Your task to perform on an android device: stop showing notifications on the lock screen Image 0: 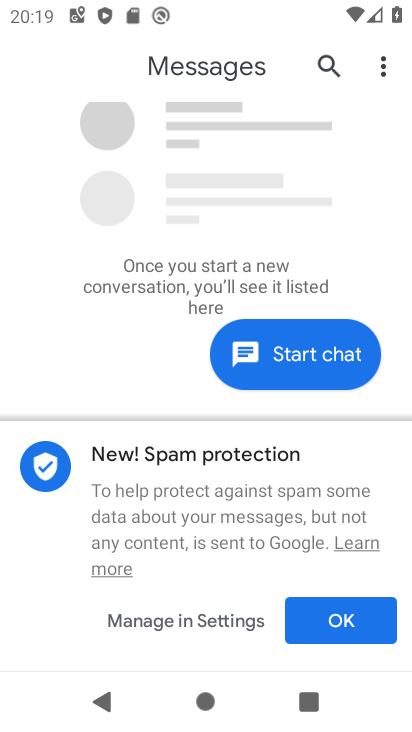
Step 0: press home button
Your task to perform on an android device: stop showing notifications on the lock screen Image 1: 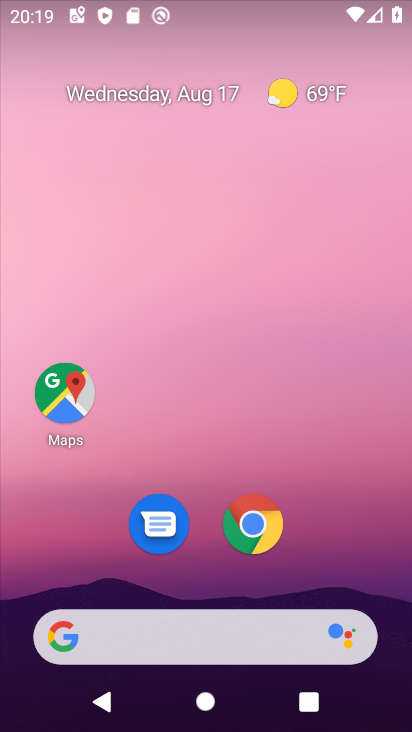
Step 1: drag from (343, 545) to (356, 45)
Your task to perform on an android device: stop showing notifications on the lock screen Image 2: 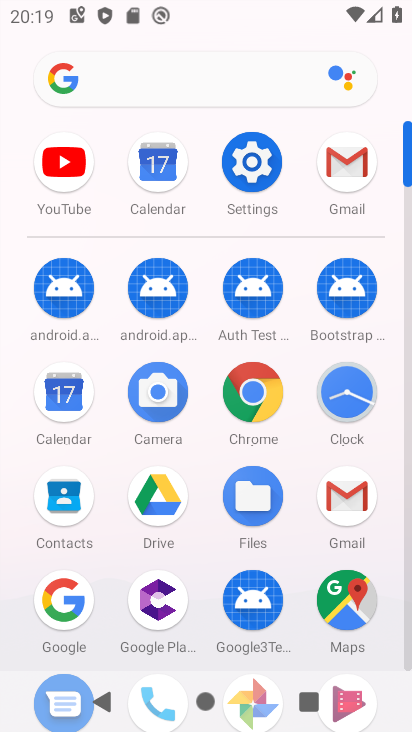
Step 2: click (257, 160)
Your task to perform on an android device: stop showing notifications on the lock screen Image 3: 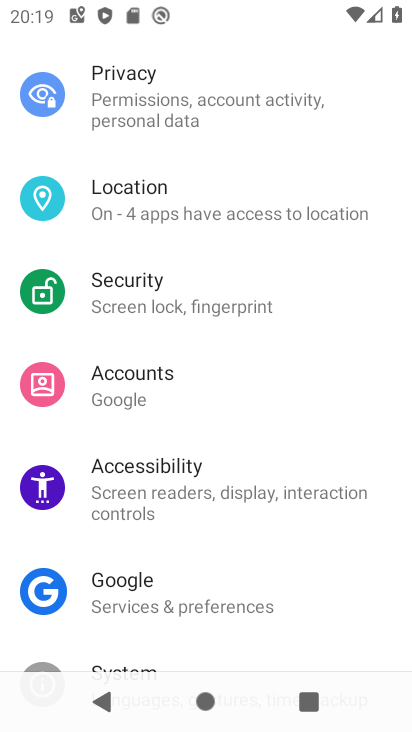
Step 3: drag from (257, 188) to (281, 561)
Your task to perform on an android device: stop showing notifications on the lock screen Image 4: 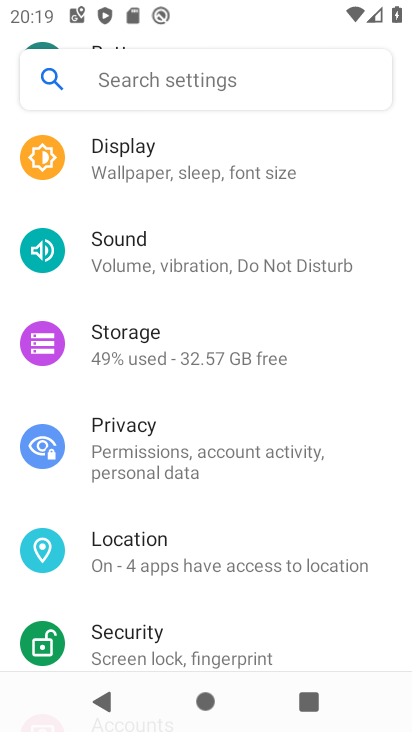
Step 4: drag from (228, 208) to (275, 546)
Your task to perform on an android device: stop showing notifications on the lock screen Image 5: 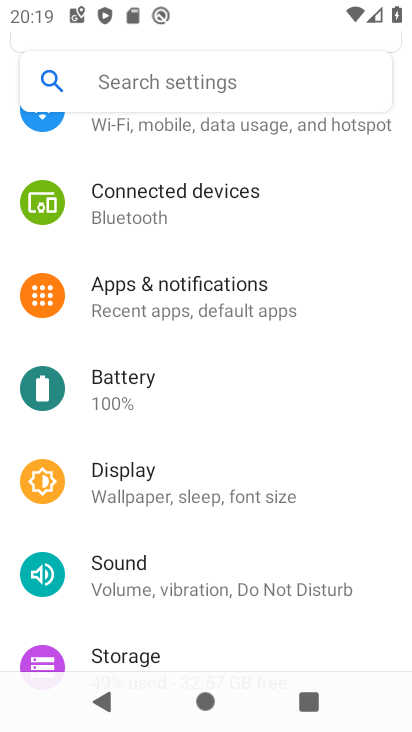
Step 5: click (231, 301)
Your task to perform on an android device: stop showing notifications on the lock screen Image 6: 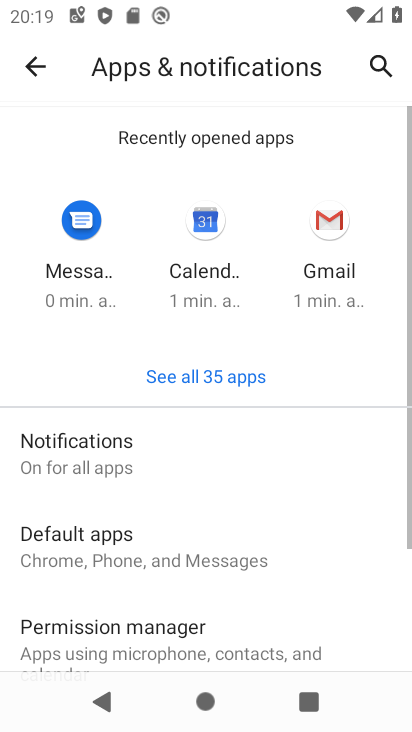
Step 6: click (105, 446)
Your task to perform on an android device: stop showing notifications on the lock screen Image 7: 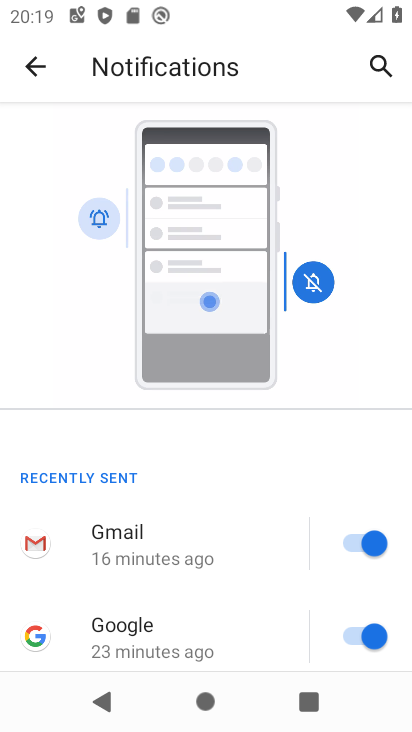
Step 7: drag from (191, 533) to (239, 0)
Your task to perform on an android device: stop showing notifications on the lock screen Image 8: 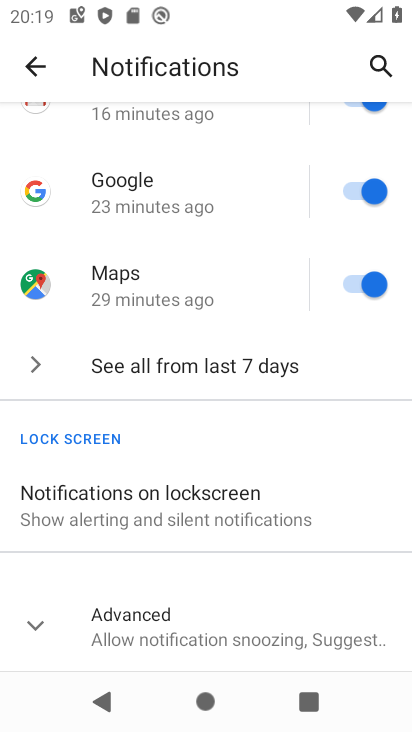
Step 8: click (208, 510)
Your task to perform on an android device: stop showing notifications on the lock screen Image 9: 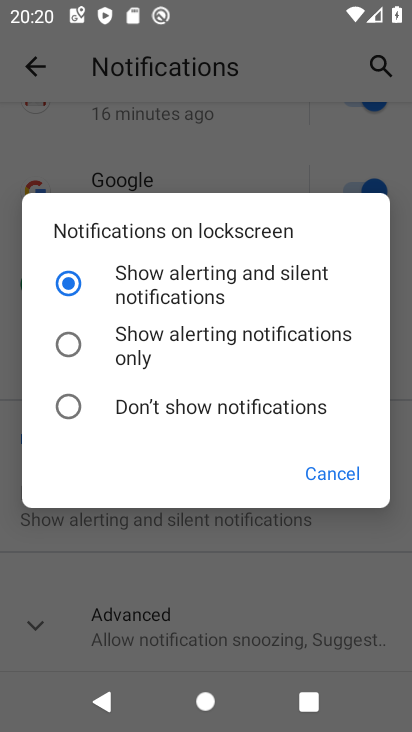
Step 9: click (120, 409)
Your task to perform on an android device: stop showing notifications on the lock screen Image 10: 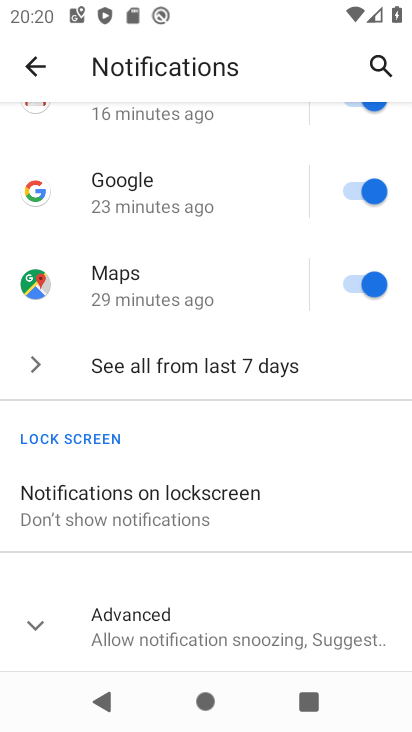
Step 10: task complete